Your task to perform on an android device: Go to Amazon Image 0: 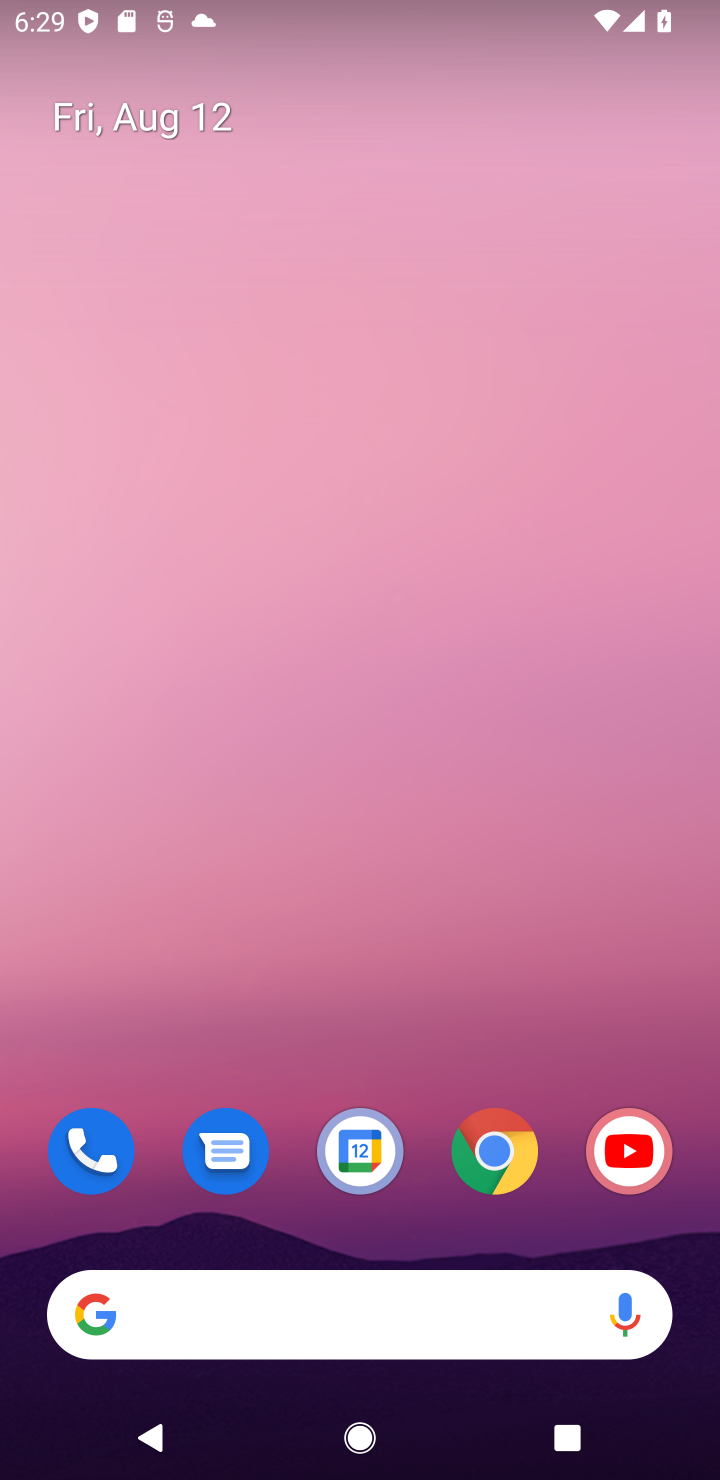
Step 0: drag from (379, 916) to (390, 168)
Your task to perform on an android device: Go to Amazon Image 1: 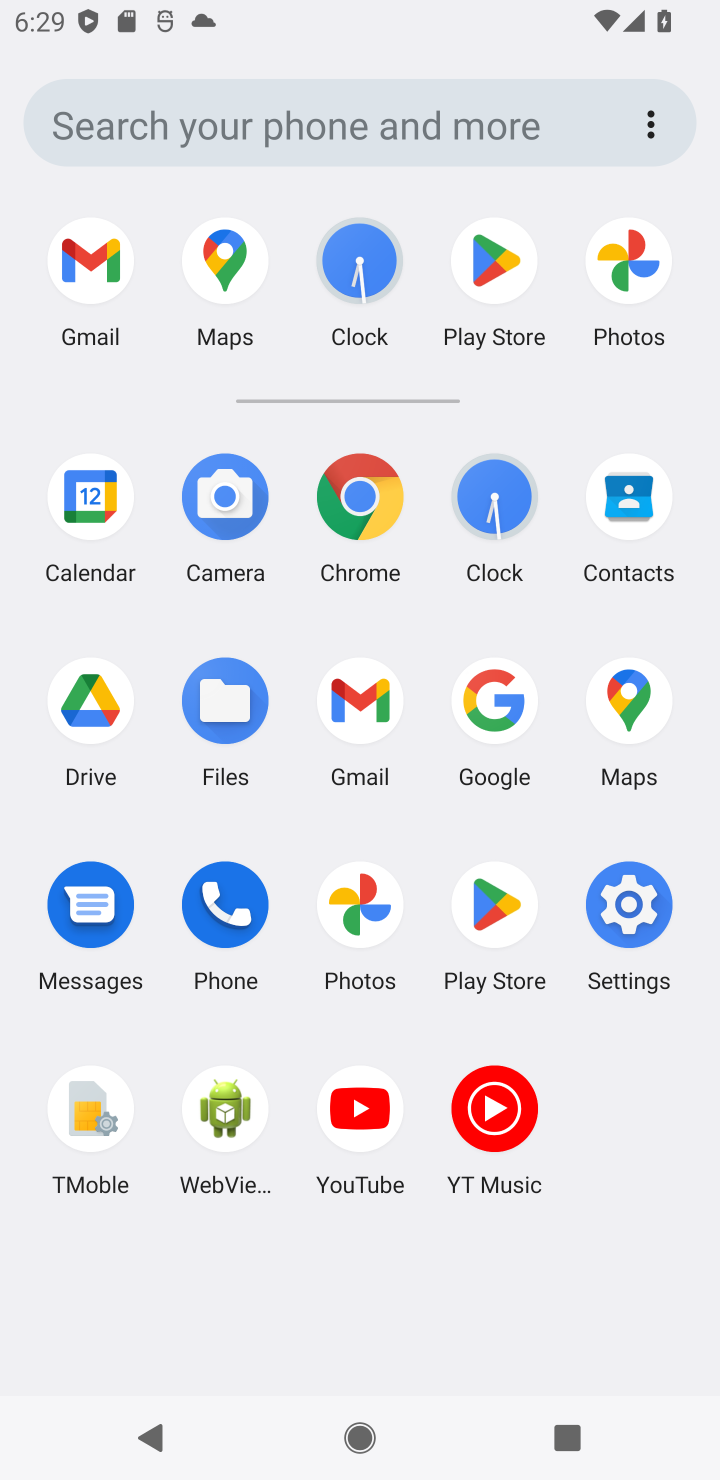
Step 1: click (354, 508)
Your task to perform on an android device: Go to Amazon Image 2: 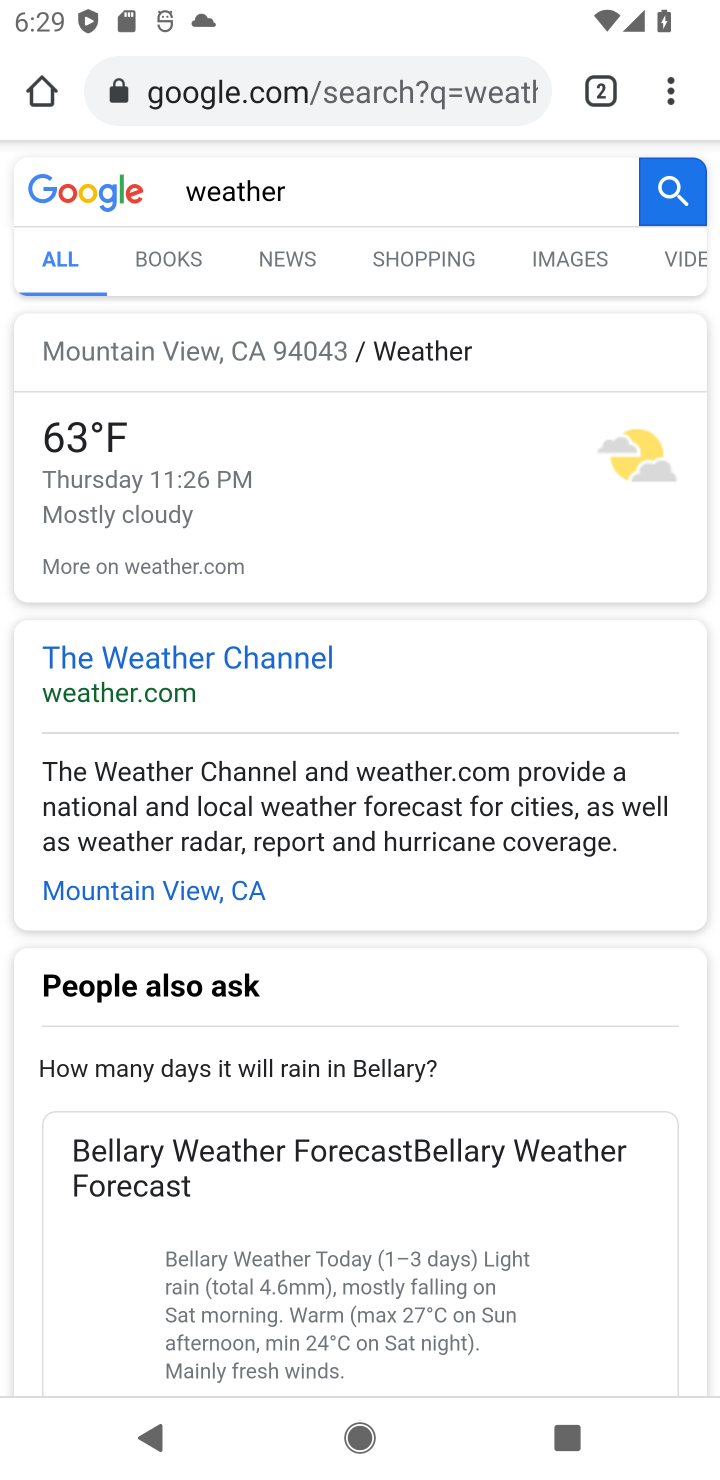
Step 2: click (301, 83)
Your task to perform on an android device: Go to Amazon Image 3: 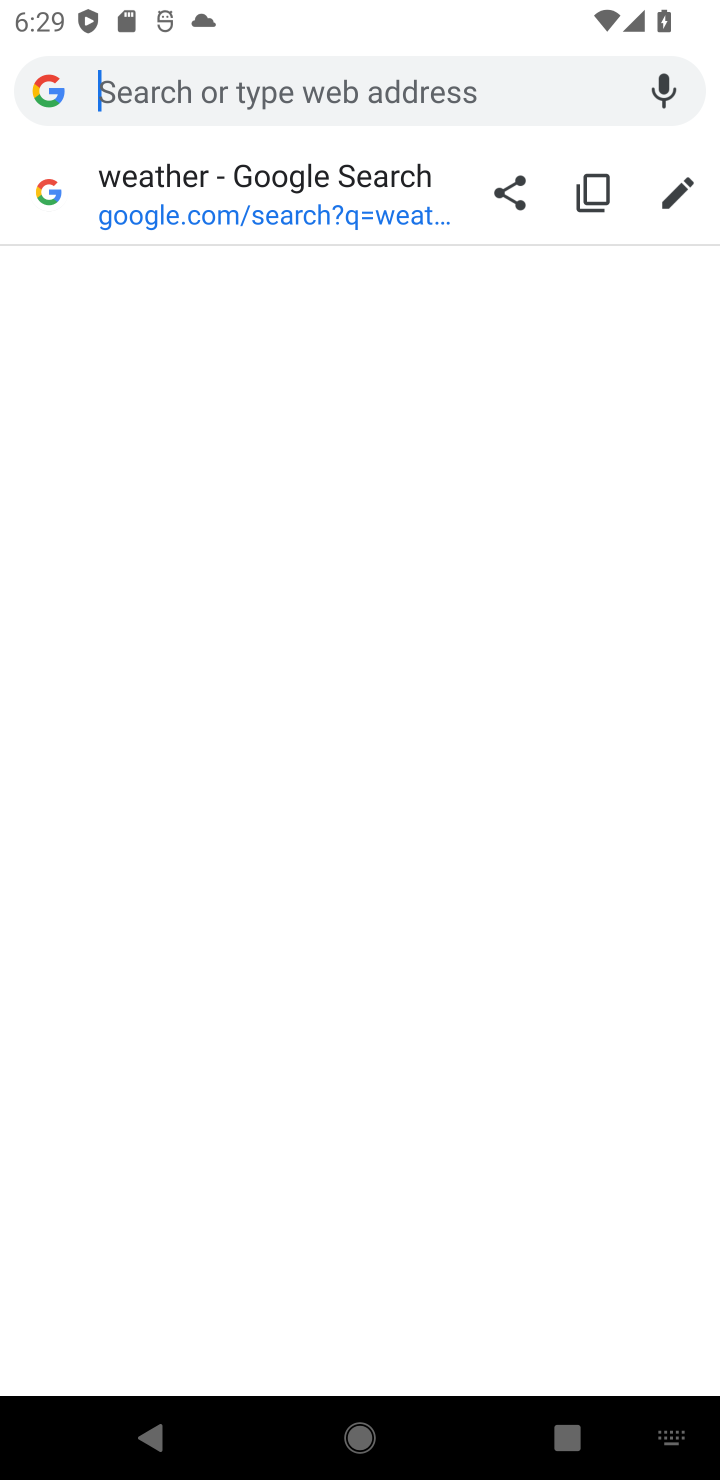
Step 3: type "amazon"
Your task to perform on an android device: Go to Amazon Image 4: 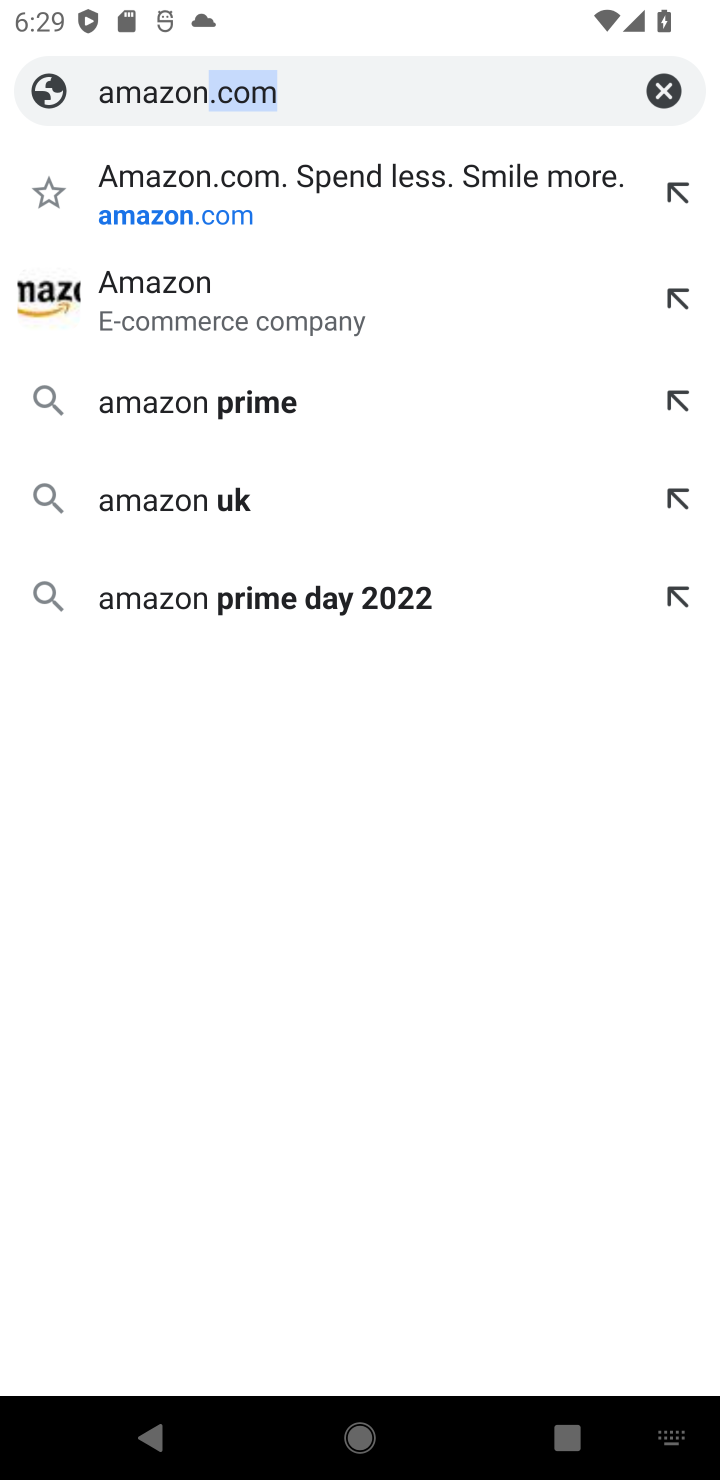
Step 4: click (176, 277)
Your task to perform on an android device: Go to Amazon Image 5: 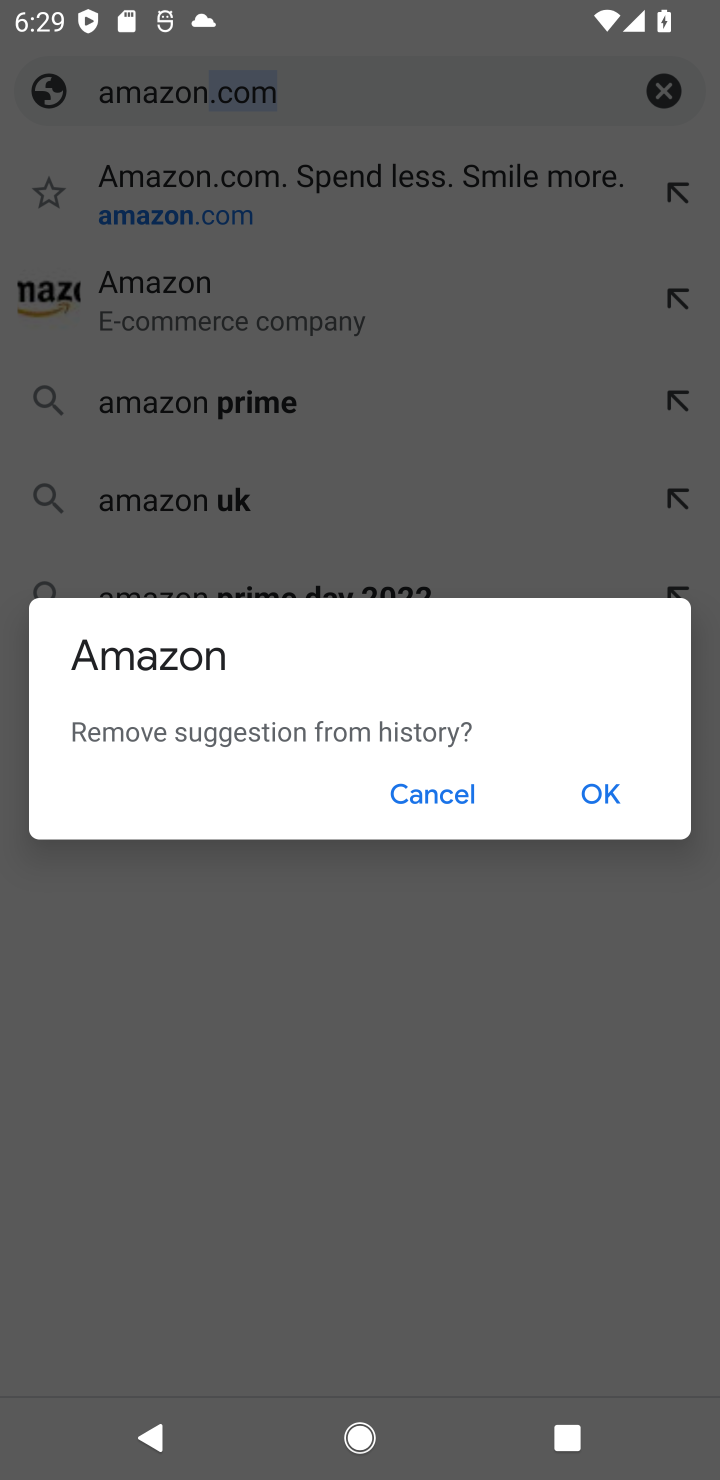
Step 5: click (414, 787)
Your task to perform on an android device: Go to Amazon Image 6: 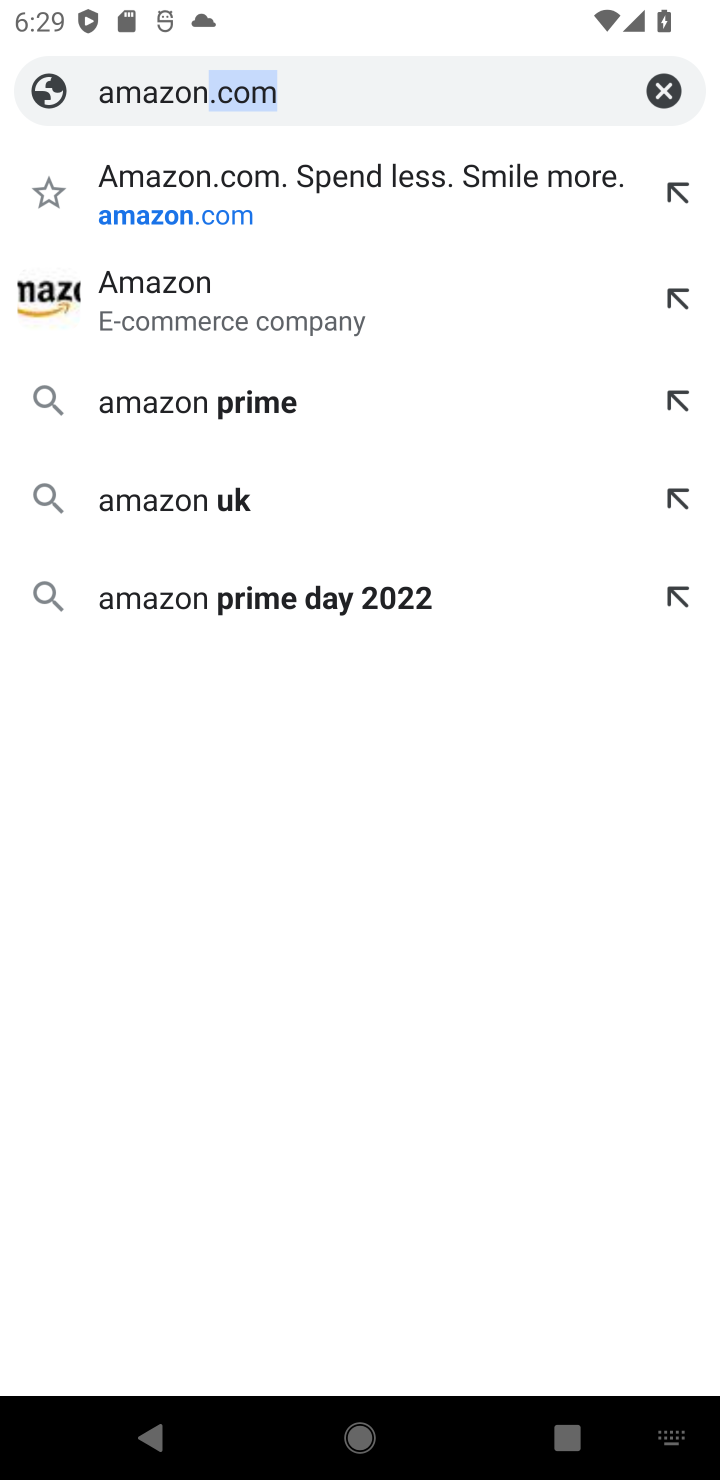
Step 6: click (109, 296)
Your task to perform on an android device: Go to Amazon Image 7: 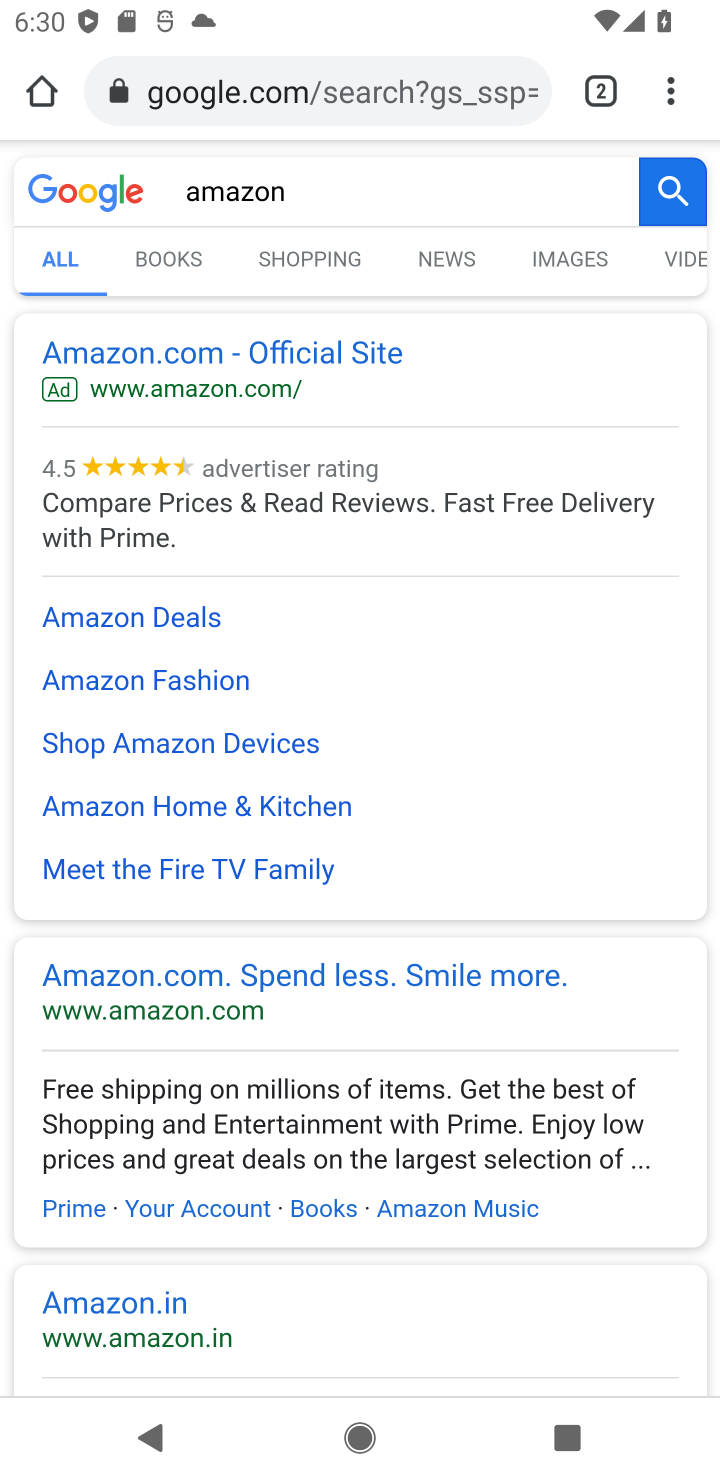
Step 7: click (189, 966)
Your task to perform on an android device: Go to Amazon Image 8: 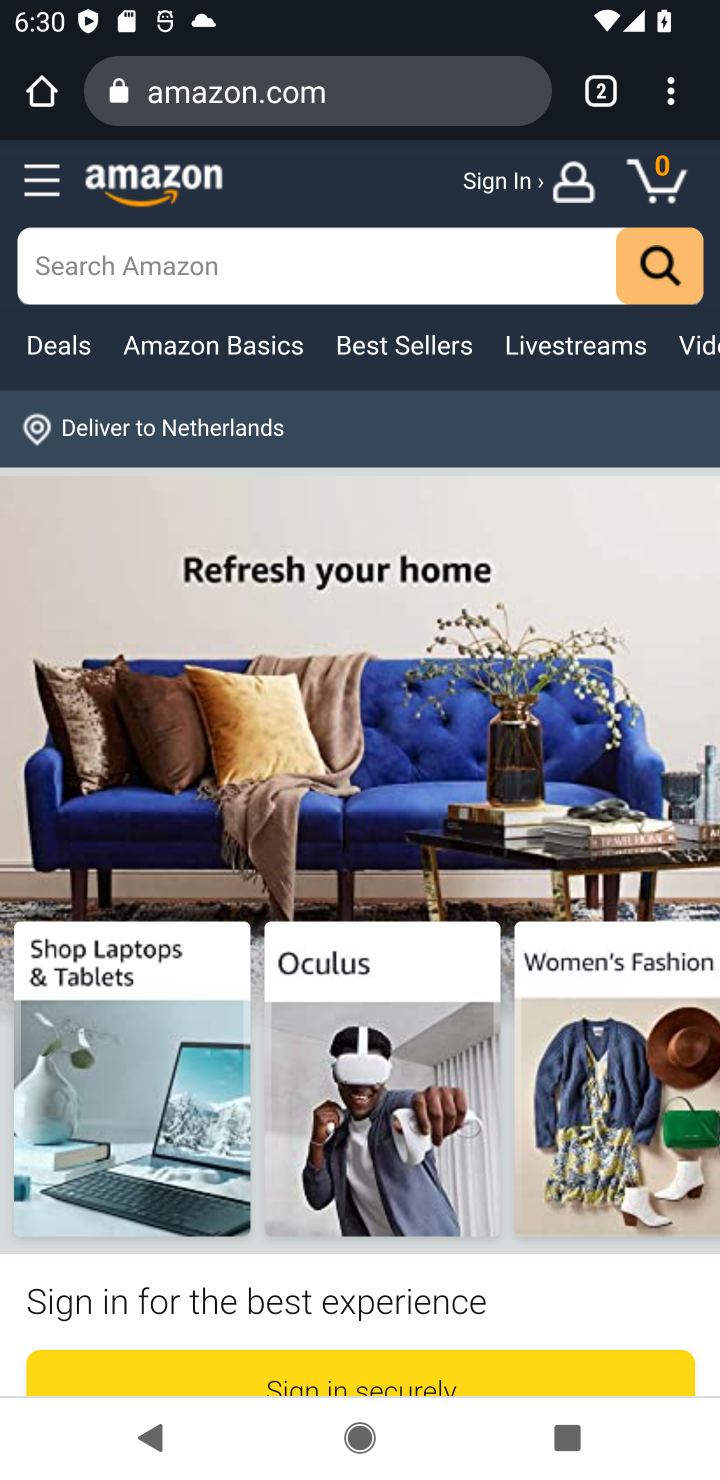
Step 8: task complete